Your task to perform on an android device: change notification settings in the gmail app Image 0: 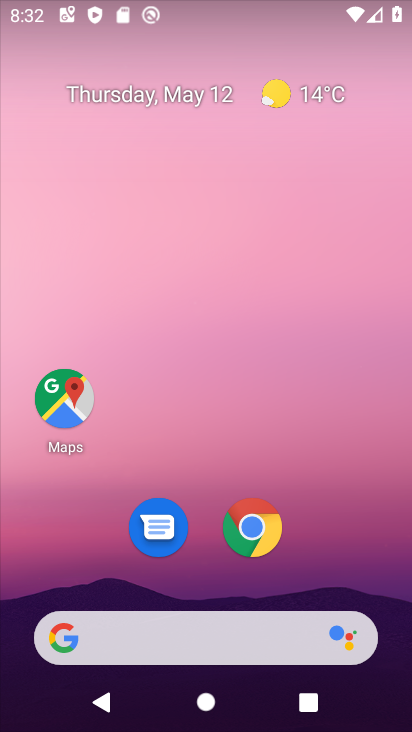
Step 0: drag from (319, 558) to (338, 196)
Your task to perform on an android device: change notification settings in the gmail app Image 1: 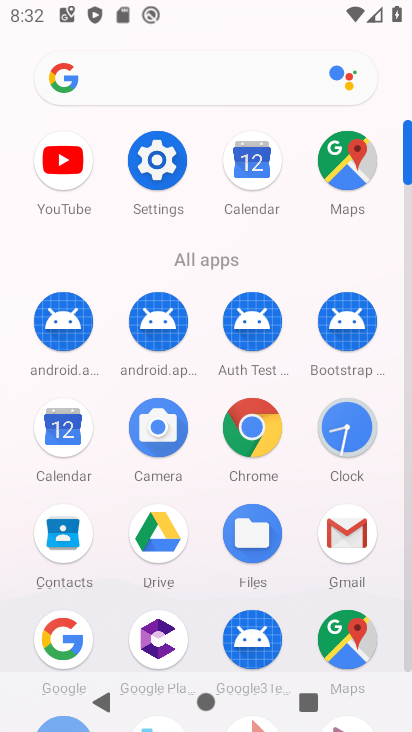
Step 1: click (344, 546)
Your task to perform on an android device: change notification settings in the gmail app Image 2: 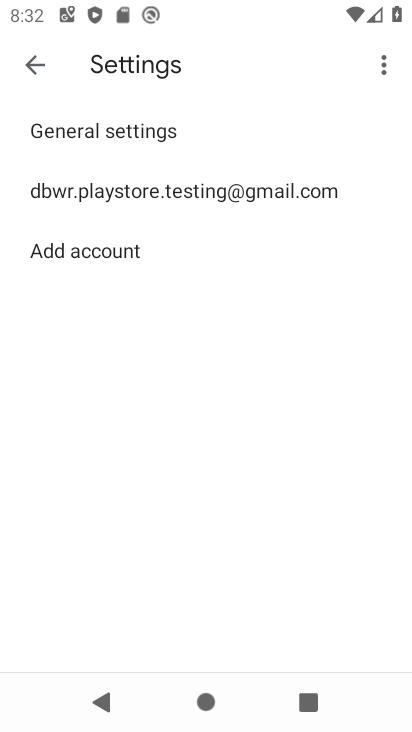
Step 2: click (138, 132)
Your task to perform on an android device: change notification settings in the gmail app Image 3: 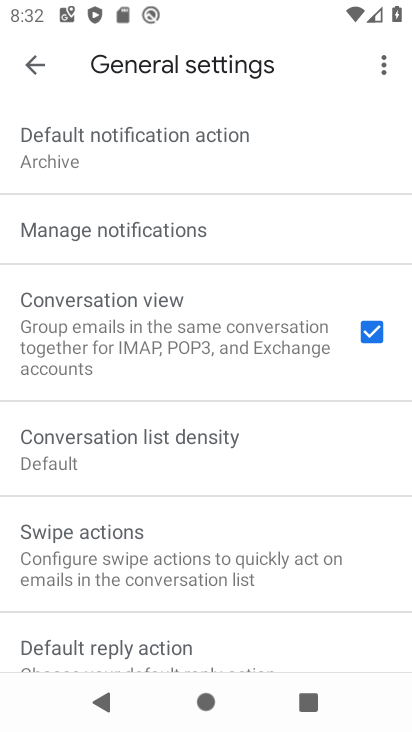
Step 3: click (163, 216)
Your task to perform on an android device: change notification settings in the gmail app Image 4: 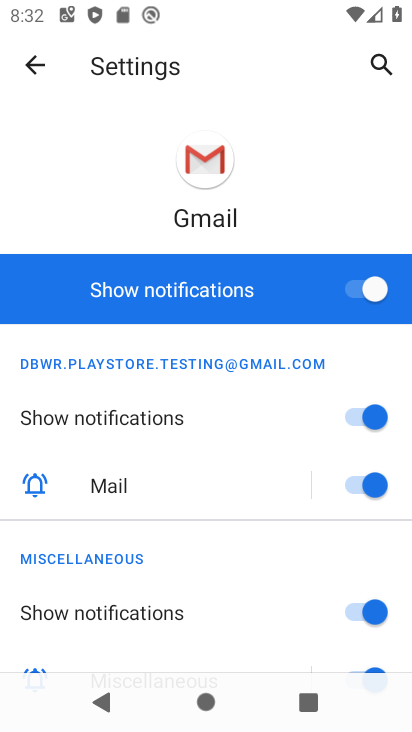
Step 4: click (313, 307)
Your task to perform on an android device: change notification settings in the gmail app Image 5: 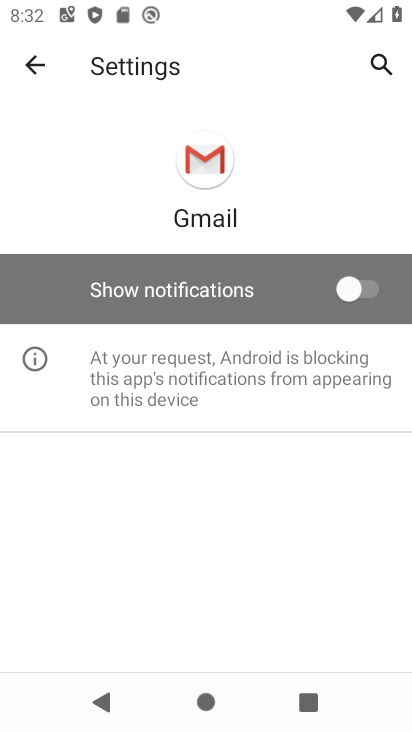
Step 5: task complete